Your task to perform on an android device: turn on the 24-hour format for clock Image 0: 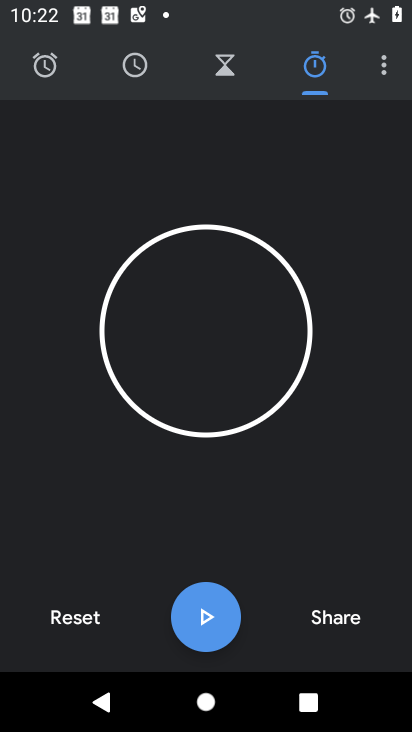
Step 0: click (377, 67)
Your task to perform on an android device: turn on the 24-hour format for clock Image 1: 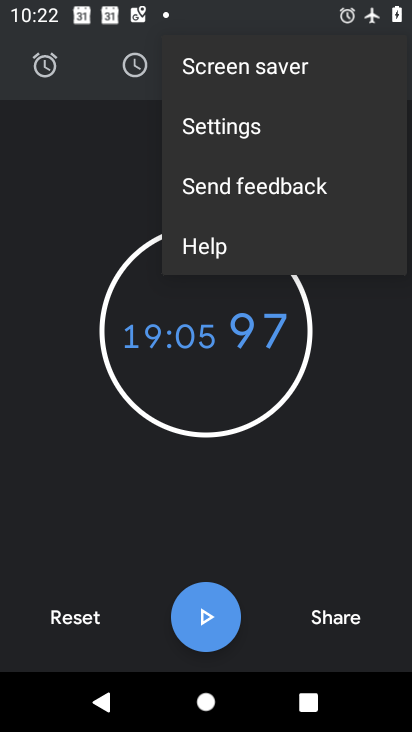
Step 1: click (294, 140)
Your task to perform on an android device: turn on the 24-hour format for clock Image 2: 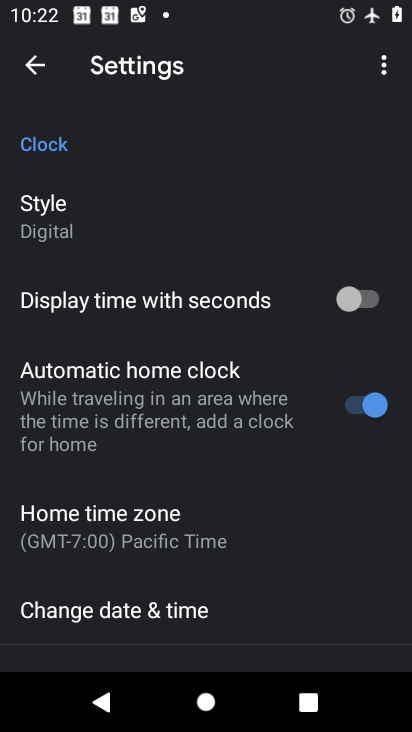
Step 2: click (206, 587)
Your task to perform on an android device: turn on the 24-hour format for clock Image 3: 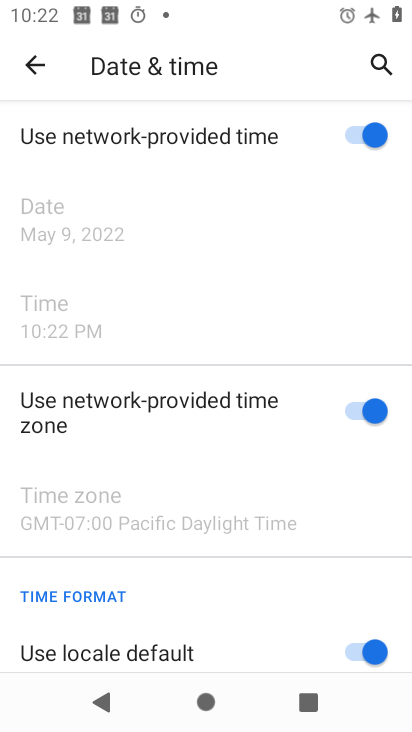
Step 3: drag from (278, 600) to (366, 100)
Your task to perform on an android device: turn on the 24-hour format for clock Image 4: 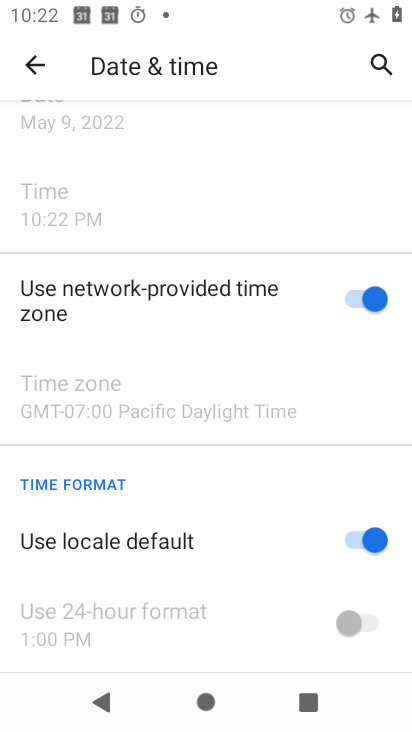
Step 4: click (370, 549)
Your task to perform on an android device: turn on the 24-hour format for clock Image 5: 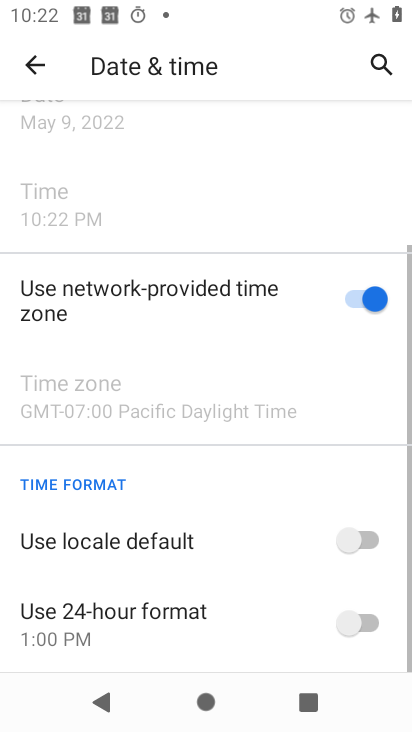
Step 5: click (349, 627)
Your task to perform on an android device: turn on the 24-hour format for clock Image 6: 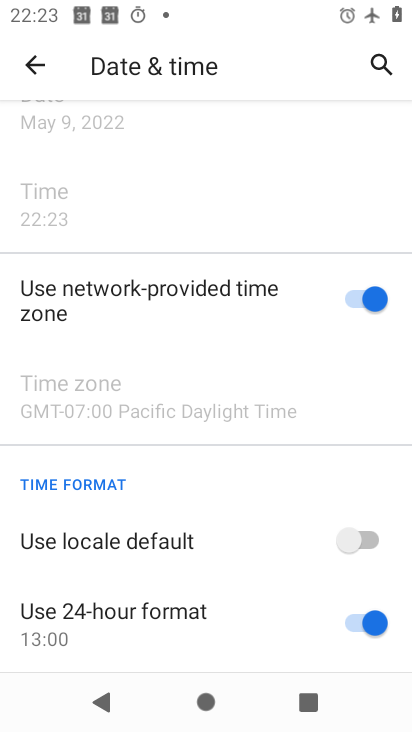
Step 6: task complete